Your task to perform on an android device: choose inbox layout in the gmail app Image 0: 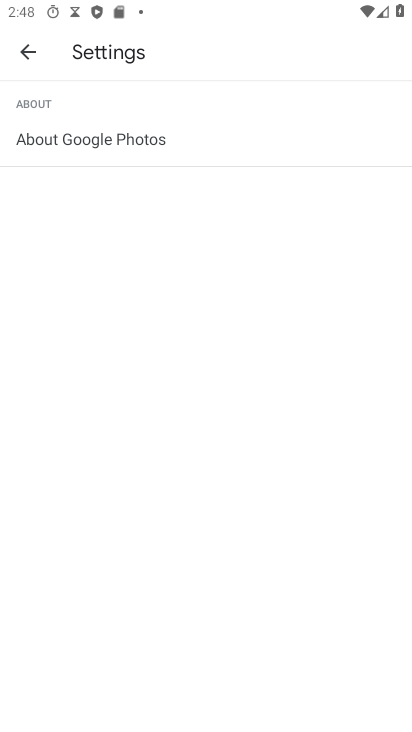
Step 0: press home button
Your task to perform on an android device: choose inbox layout in the gmail app Image 1: 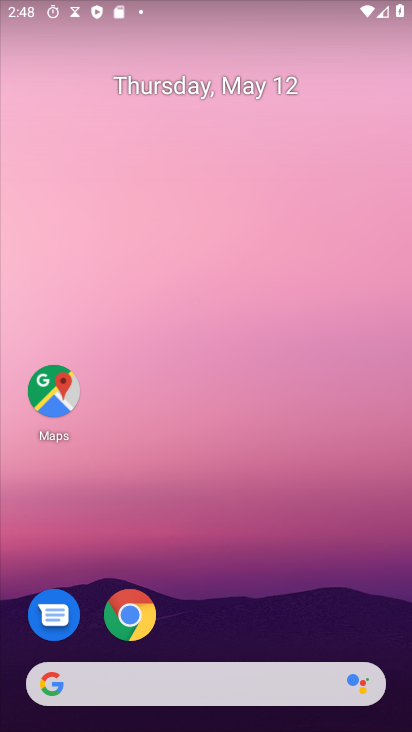
Step 1: drag from (26, 591) to (316, 138)
Your task to perform on an android device: choose inbox layout in the gmail app Image 2: 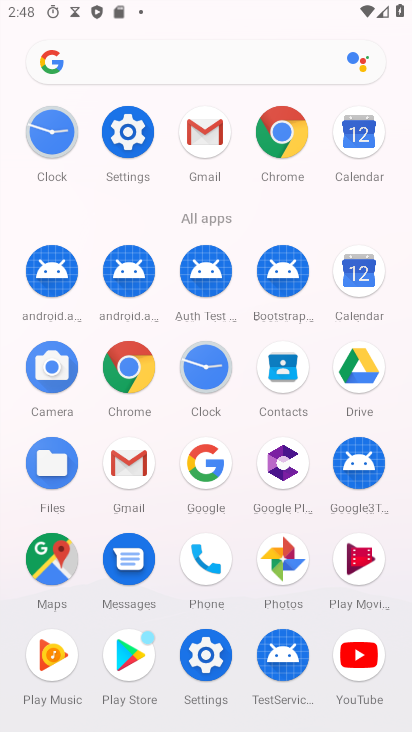
Step 2: click (135, 468)
Your task to perform on an android device: choose inbox layout in the gmail app Image 3: 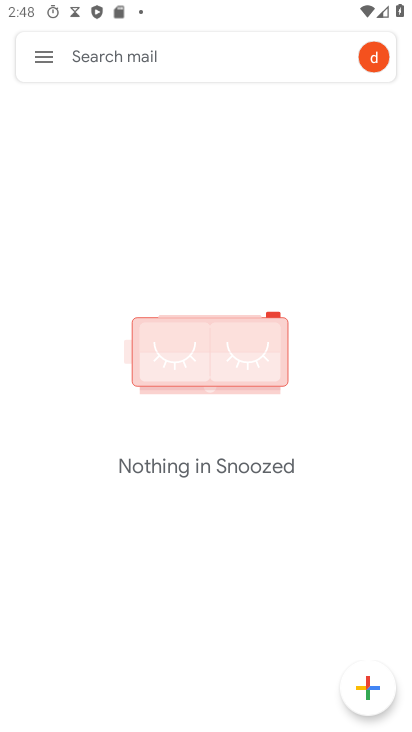
Step 3: click (29, 65)
Your task to perform on an android device: choose inbox layout in the gmail app Image 4: 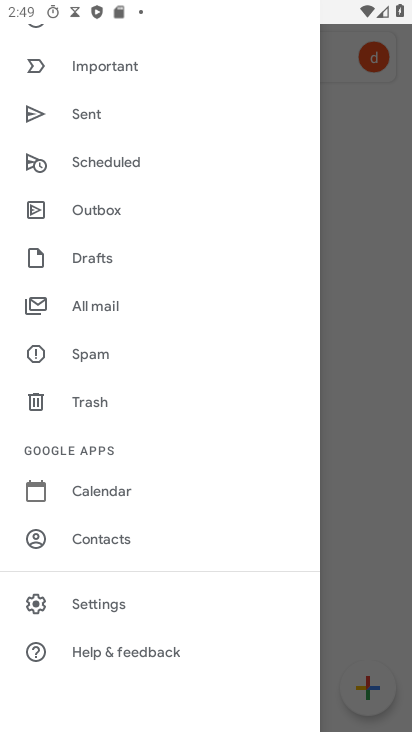
Step 4: click (69, 614)
Your task to perform on an android device: choose inbox layout in the gmail app Image 5: 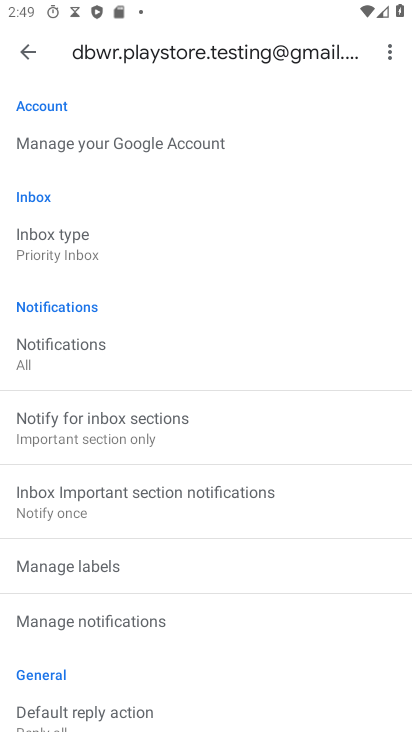
Step 5: task complete